Your task to perform on an android device: find photos in the google photos app Image 0: 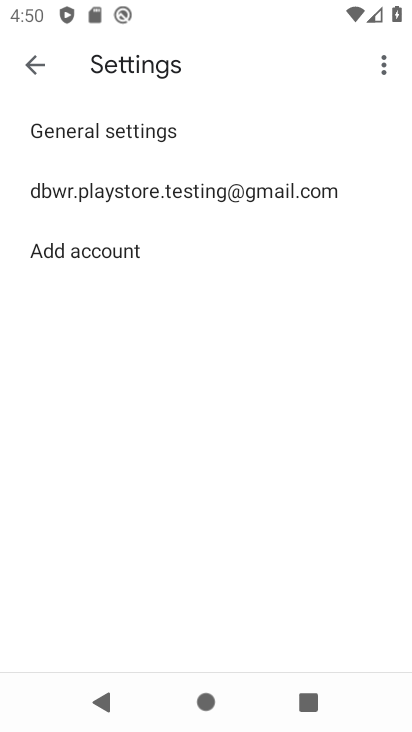
Step 0: press home button
Your task to perform on an android device: find photos in the google photos app Image 1: 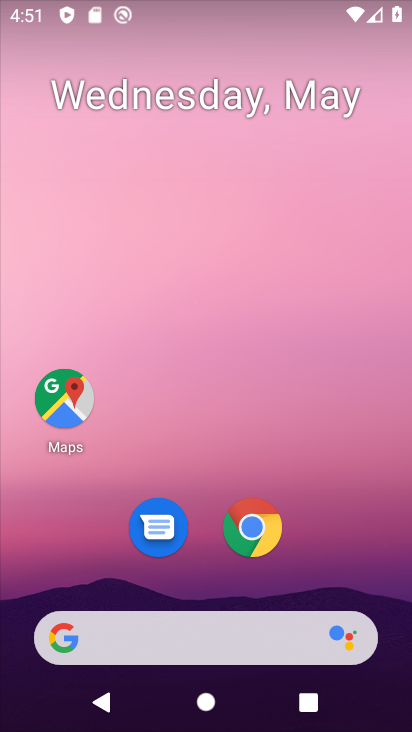
Step 1: drag from (290, 569) to (261, 125)
Your task to perform on an android device: find photos in the google photos app Image 2: 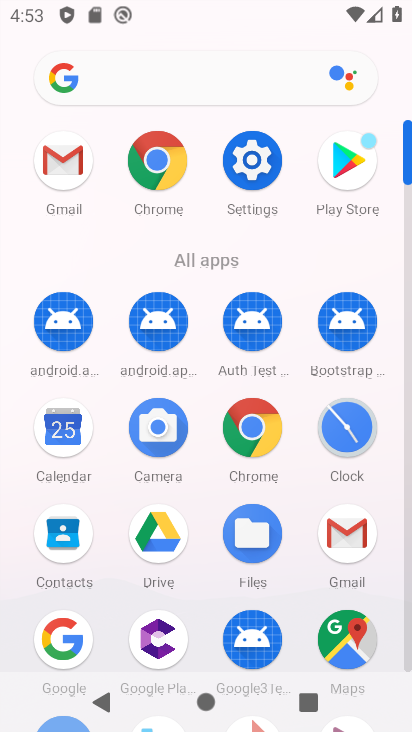
Step 2: drag from (251, 653) to (282, 494)
Your task to perform on an android device: find photos in the google photos app Image 3: 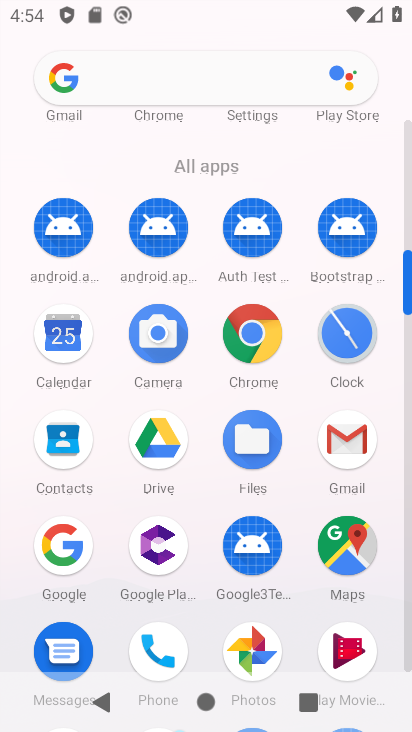
Step 3: click (247, 643)
Your task to perform on an android device: find photos in the google photos app Image 4: 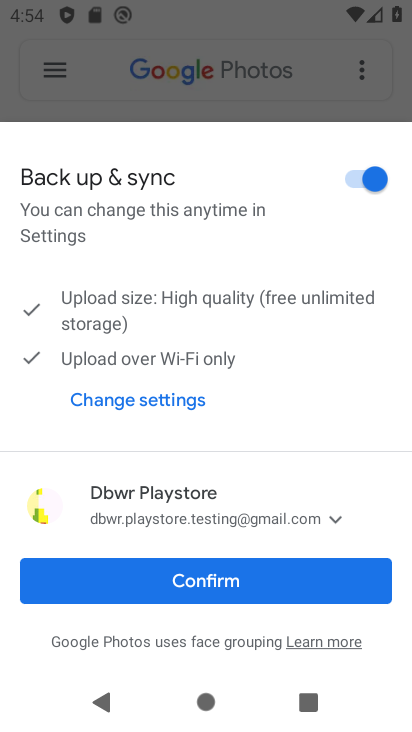
Step 4: click (205, 561)
Your task to perform on an android device: find photos in the google photos app Image 5: 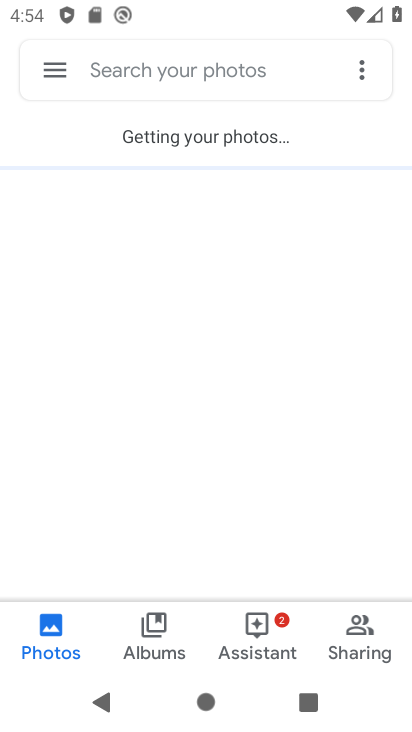
Step 5: press home button
Your task to perform on an android device: find photos in the google photos app Image 6: 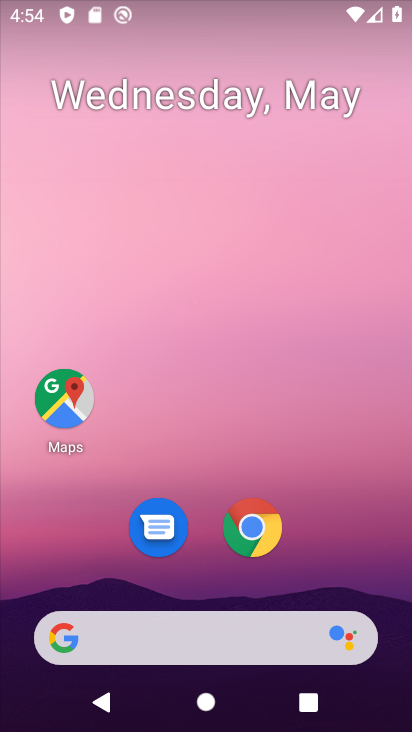
Step 6: drag from (191, 559) to (157, 79)
Your task to perform on an android device: find photos in the google photos app Image 7: 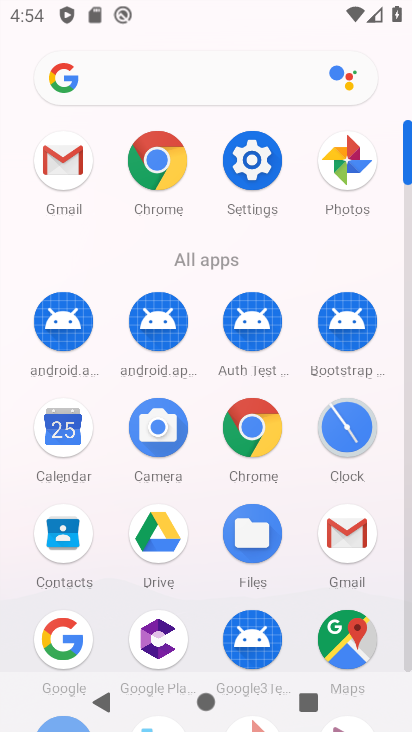
Step 7: drag from (202, 616) to (213, 402)
Your task to perform on an android device: find photos in the google photos app Image 8: 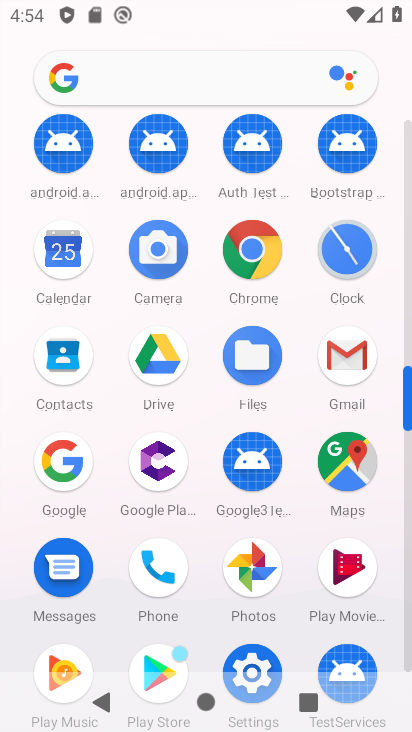
Step 8: click (246, 577)
Your task to perform on an android device: find photos in the google photos app Image 9: 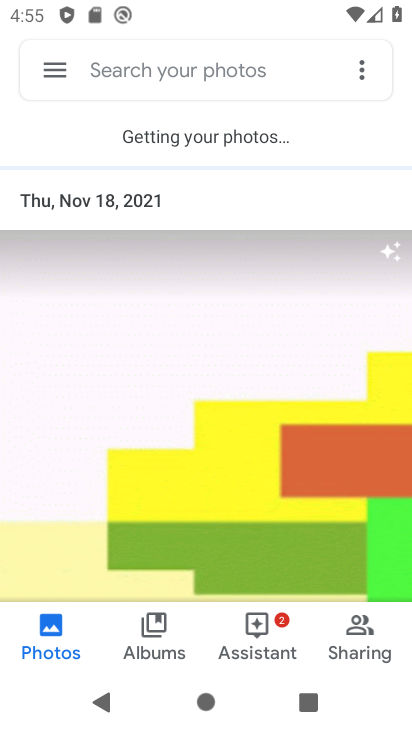
Step 9: task complete